Your task to perform on an android device: delete browsing data in the chrome app Image 0: 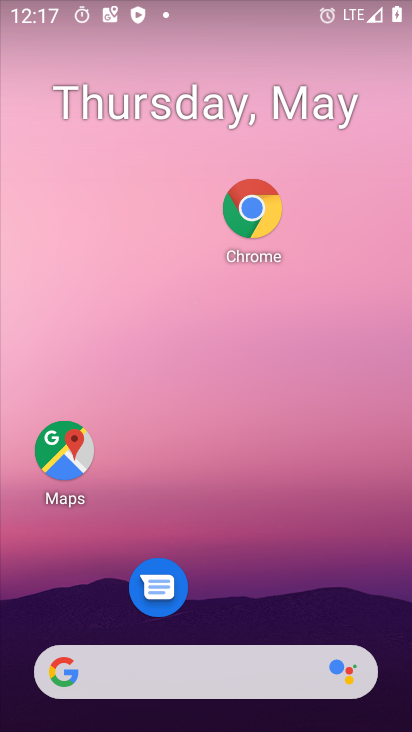
Step 0: click (250, 205)
Your task to perform on an android device: delete browsing data in the chrome app Image 1: 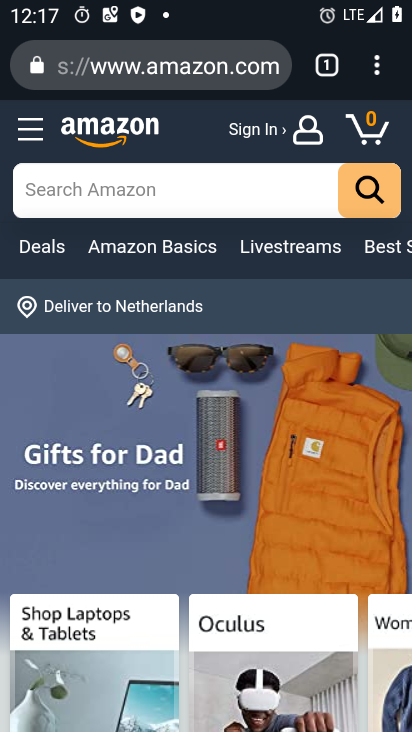
Step 1: click (384, 76)
Your task to perform on an android device: delete browsing data in the chrome app Image 2: 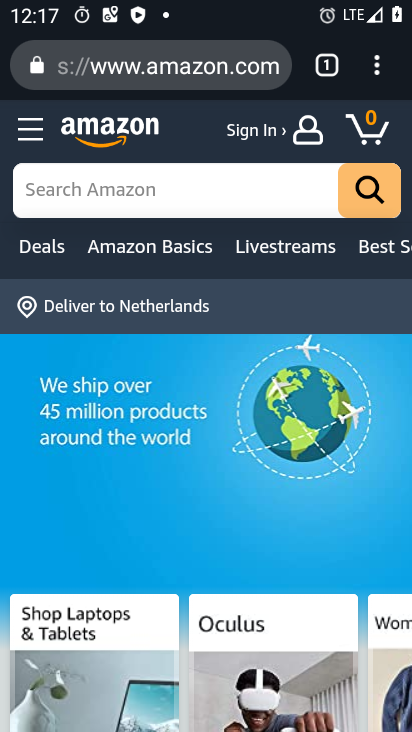
Step 2: click (381, 67)
Your task to perform on an android device: delete browsing data in the chrome app Image 3: 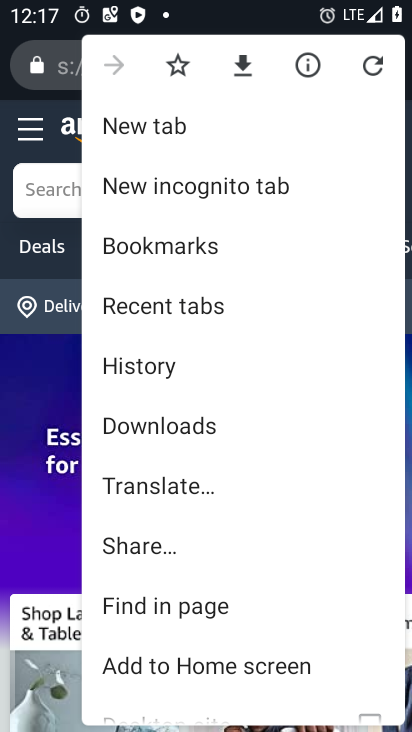
Step 3: drag from (191, 577) to (198, 287)
Your task to perform on an android device: delete browsing data in the chrome app Image 4: 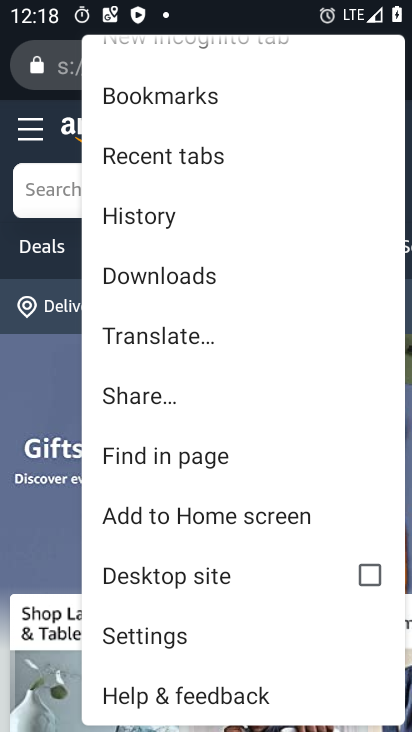
Step 4: click (159, 223)
Your task to perform on an android device: delete browsing data in the chrome app Image 5: 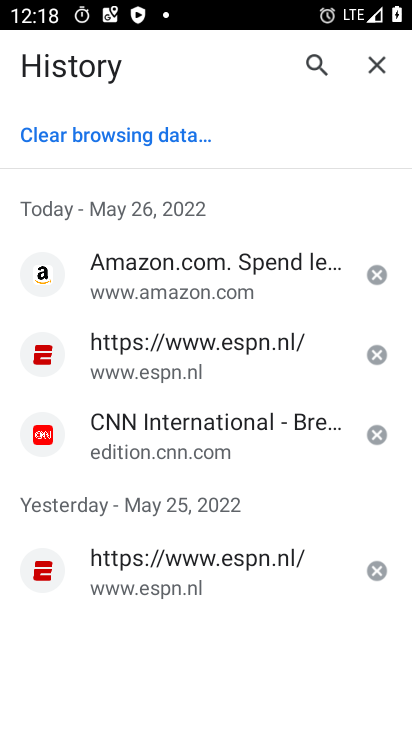
Step 5: click (162, 134)
Your task to perform on an android device: delete browsing data in the chrome app Image 6: 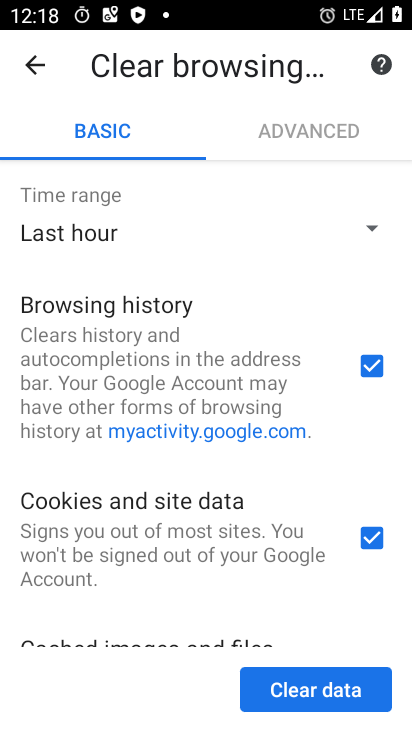
Step 6: click (307, 690)
Your task to perform on an android device: delete browsing data in the chrome app Image 7: 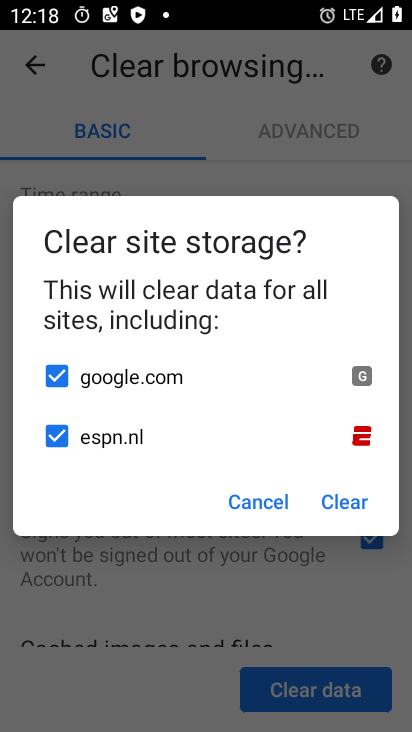
Step 7: click (349, 507)
Your task to perform on an android device: delete browsing data in the chrome app Image 8: 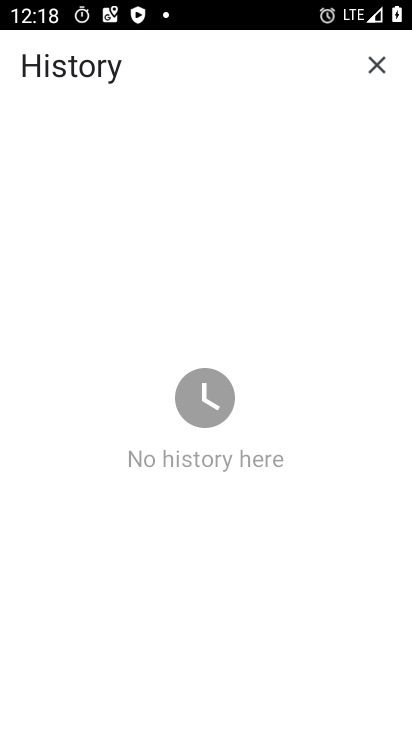
Step 8: task complete